Your task to perform on an android device: Search for a new desk on Ikea Image 0: 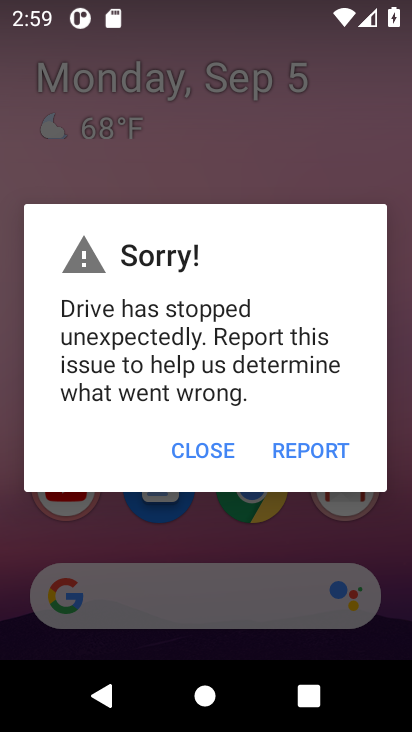
Step 0: press back button
Your task to perform on an android device: Search for a new desk on Ikea Image 1: 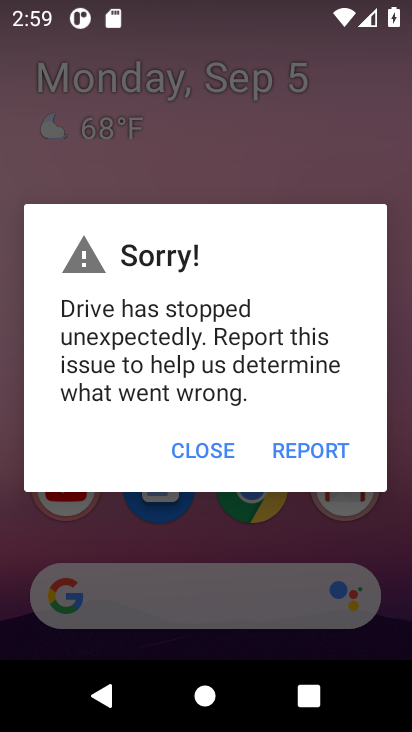
Step 1: press home button
Your task to perform on an android device: Search for a new desk on Ikea Image 2: 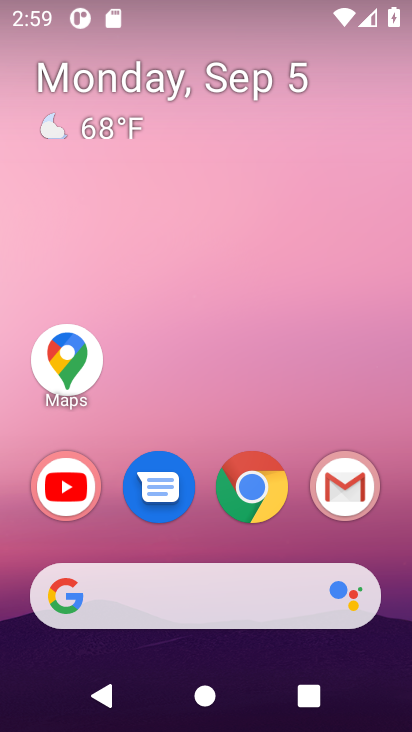
Step 2: click (237, 480)
Your task to perform on an android device: Search for a new desk on Ikea Image 3: 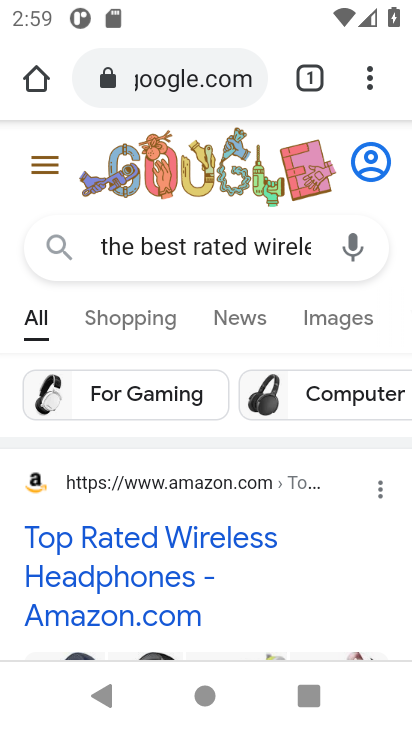
Step 3: click (170, 63)
Your task to perform on an android device: Search for a new desk on Ikea Image 4: 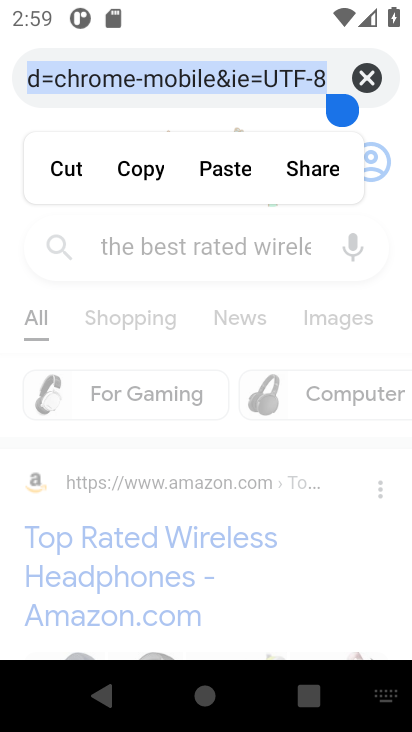
Step 4: click (369, 75)
Your task to perform on an android device: Search for a new desk on Ikea Image 5: 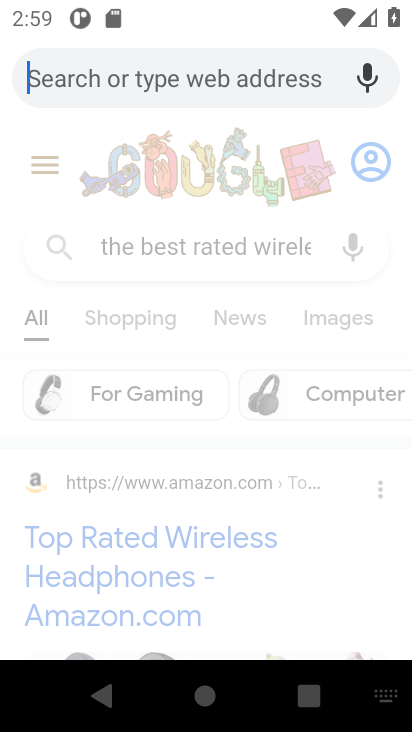
Step 5: type "new desk on Ikea"
Your task to perform on an android device: Search for a new desk on Ikea Image 6: 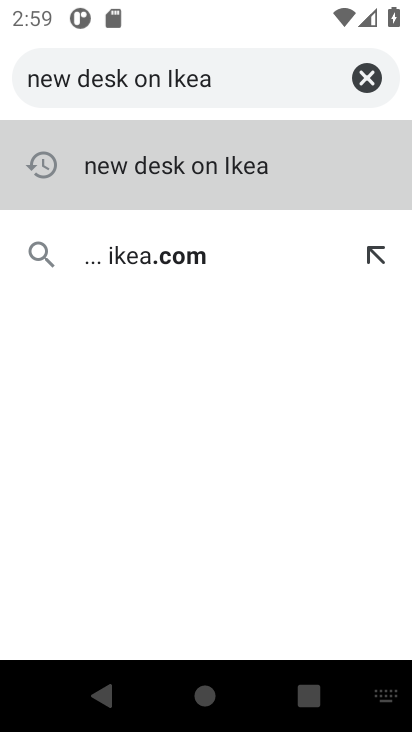
Step 6: click (153, 144)
Your task to perform on an android device: Search for a new desk on Ikea Image 7: 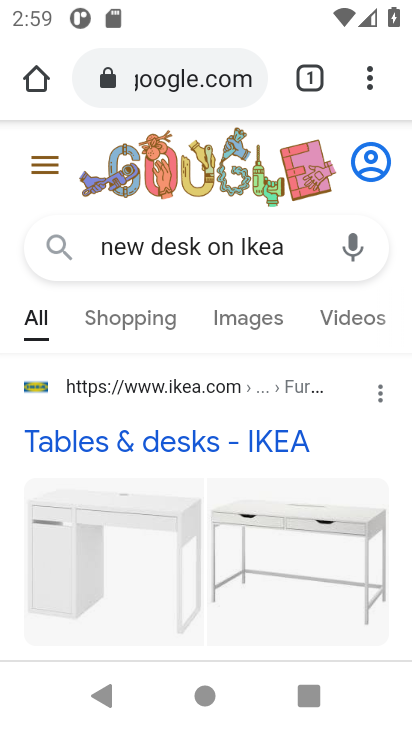
Step 7: task complete